Your task to perform on an android device: Go to notification settings Image 0: 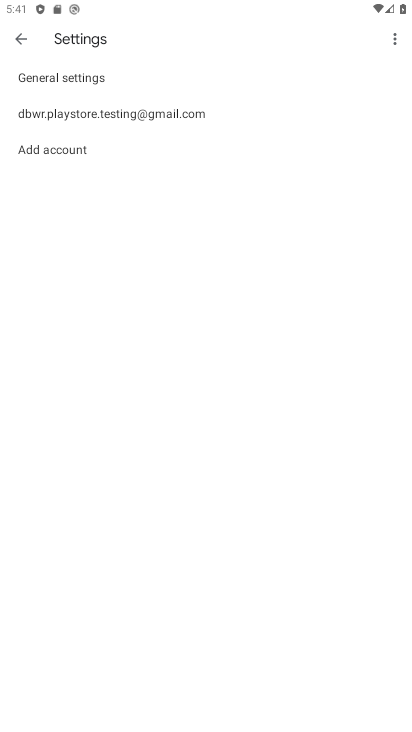
Step 0: press home button
Your task to perform on an android device: Go to notification settings Image 1: 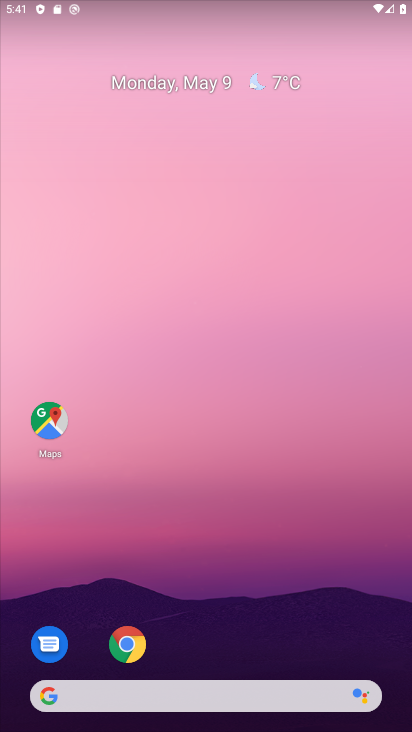
Step 1: drag from (223, 603) to (192, 56)
Your task to perform on an android device: Go to notification settings Image 2: 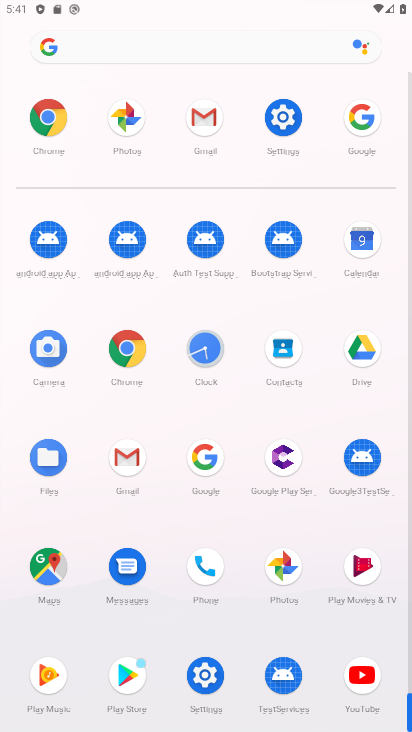
Step 2: click (285, 121)
Your task to perform on an android device: Go to notification settings Image 3: 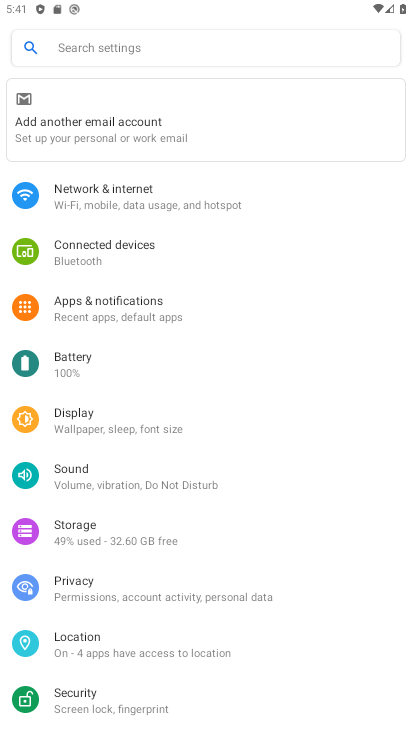
Step 3: click (140, 311)
Your task to perform on an android device: Go to notification settings Image 4: 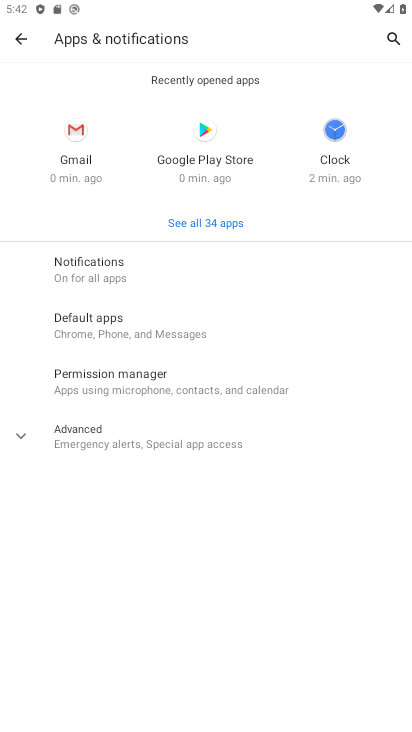
Step 4: task complete